Your task to perform on an android device: Add "bose soundlink mini" to the cart on bestbuy Image 0: 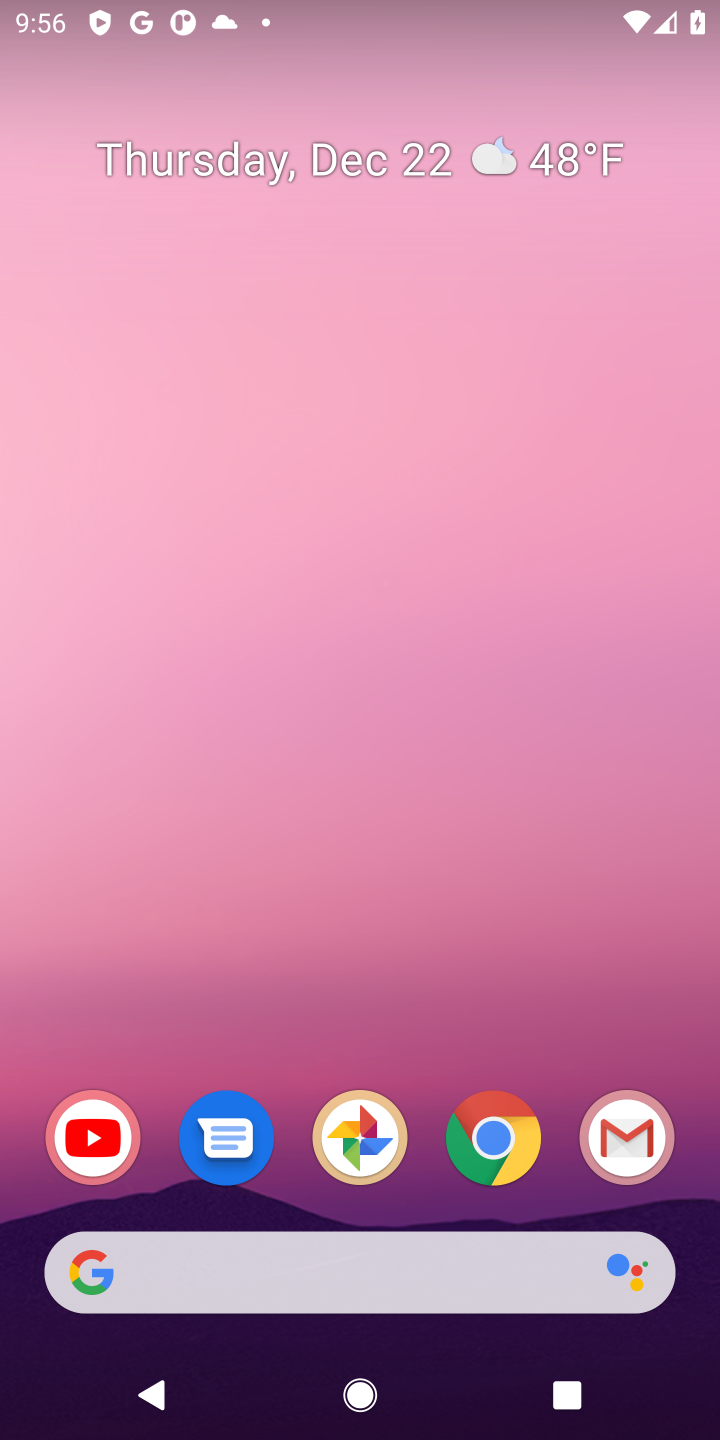
Step 0: click (483, 1154)
Your task to perform on an android device: Add "bose soundlink mini" to the cart on bestbuy Image 1: 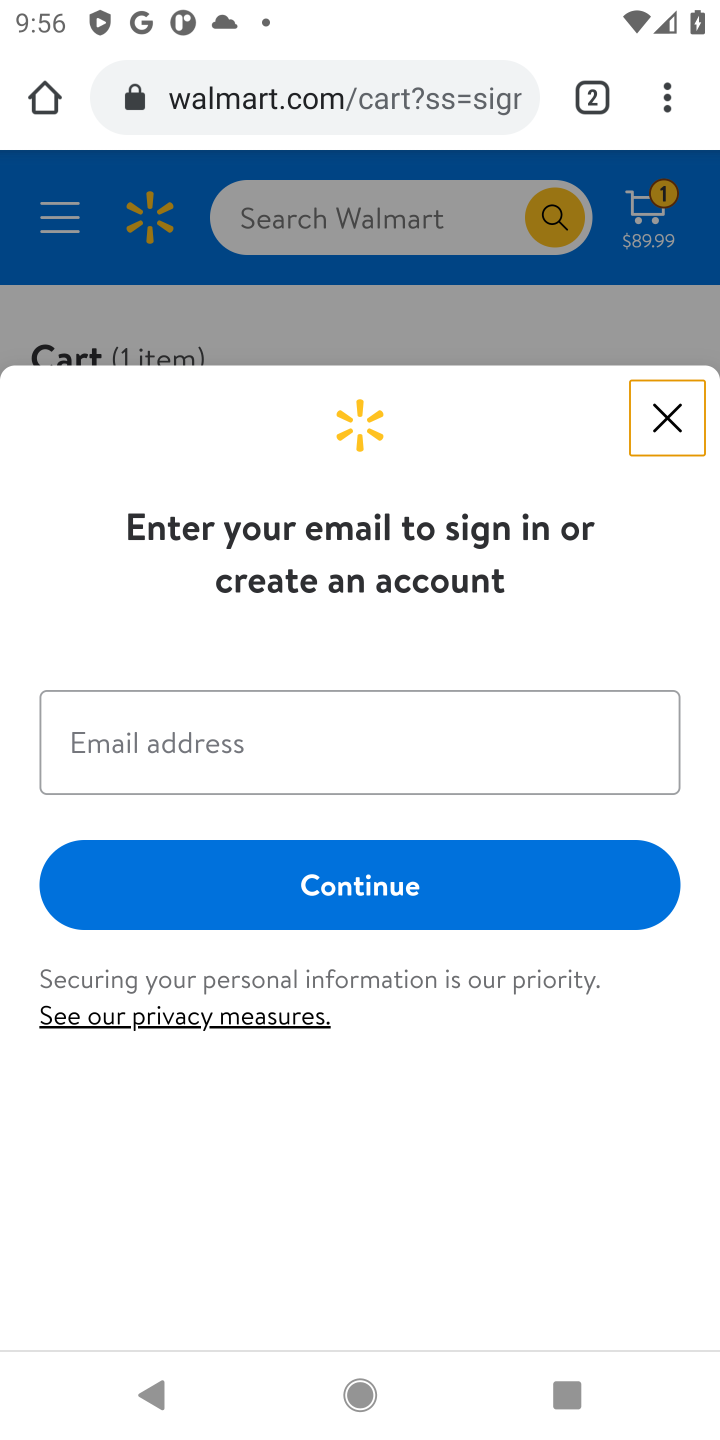
Step 1: click (330, 88)
Your task to perform on an android device: Add "bose soundlink mini" to the cart on bestbuy Image 2: 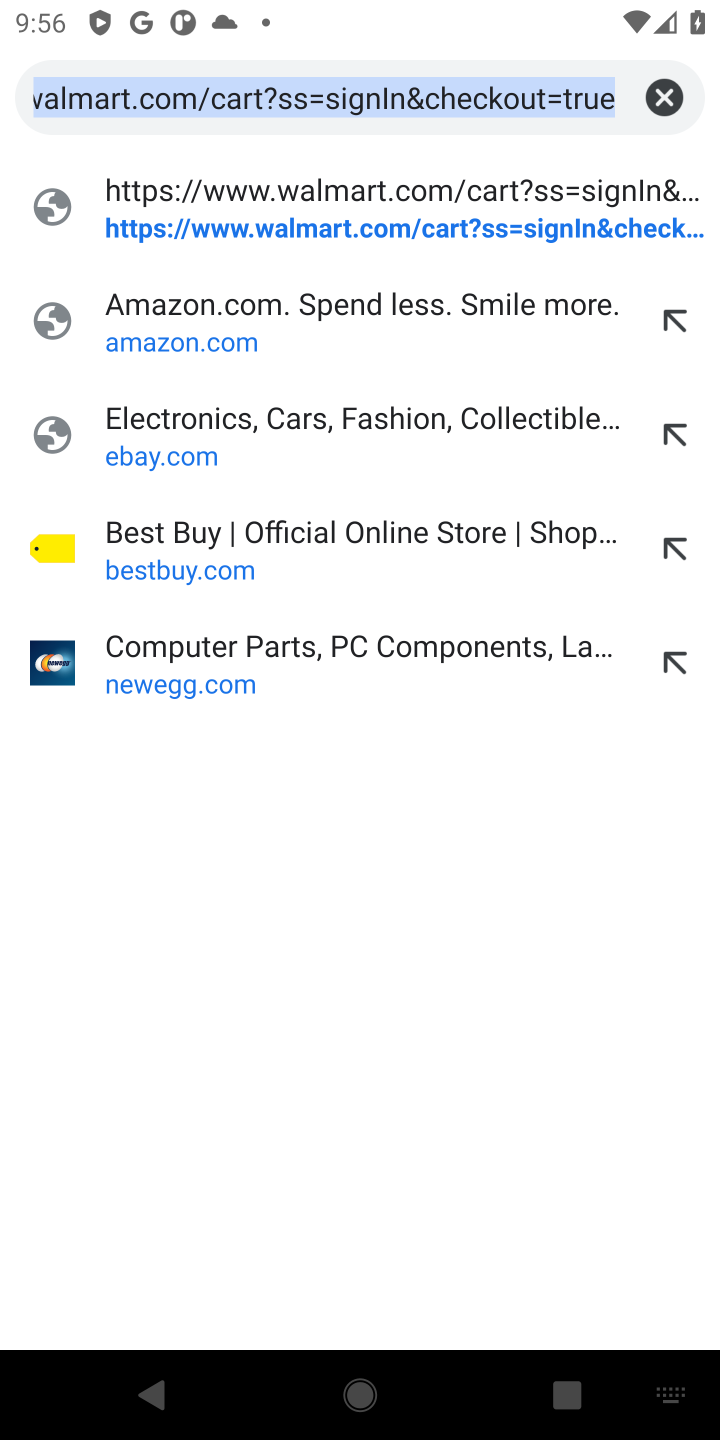
Step 2: type "bestbuy"
Your task to perform on an android device: Add "bose soundlink mini" to the cart on bestbuy Image 3: 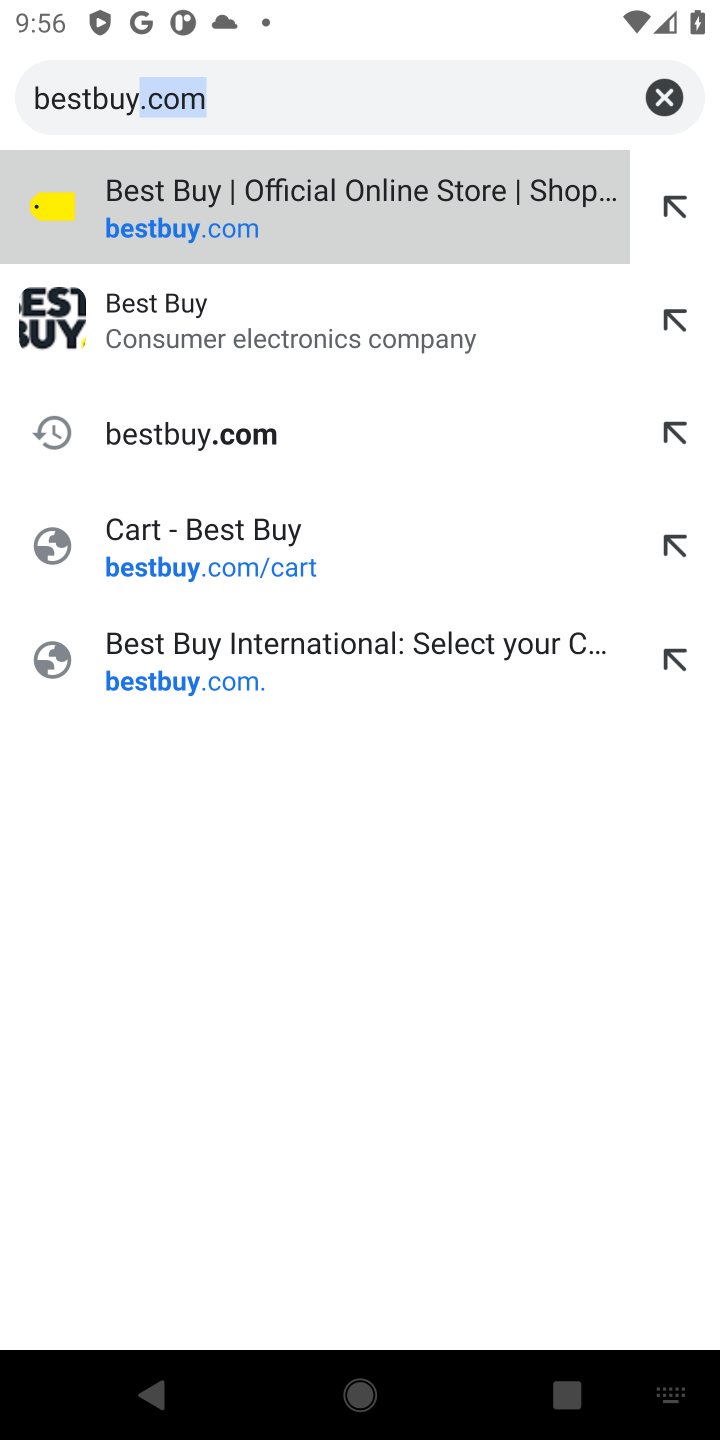
Step 3: click (371, 208)
Your task to perform on an android device: Add "bose soundlink mini" to the cart on bestbuy Image 4: 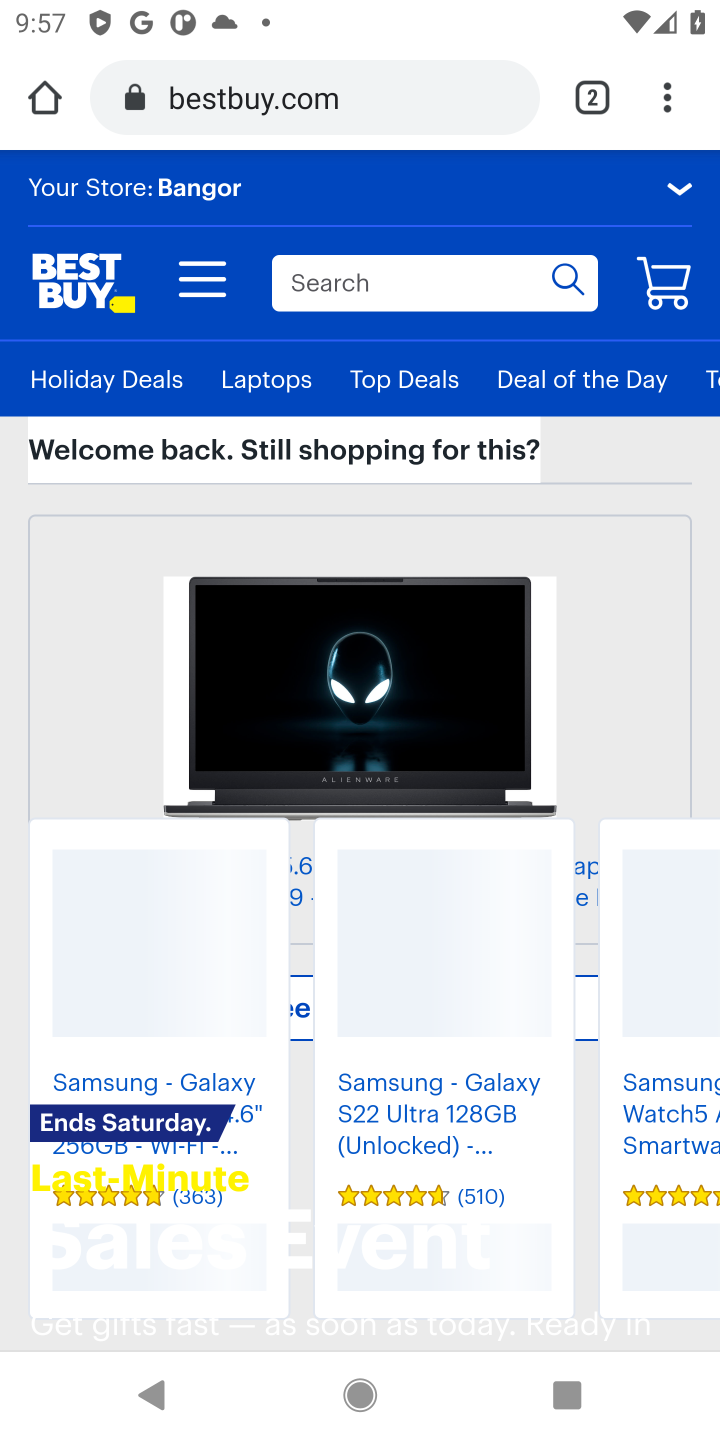
Step 4: click (382, 282)
Your task to perform on an android device: Add "bose soundlink mini" to the cart on bestbuy Image 5: 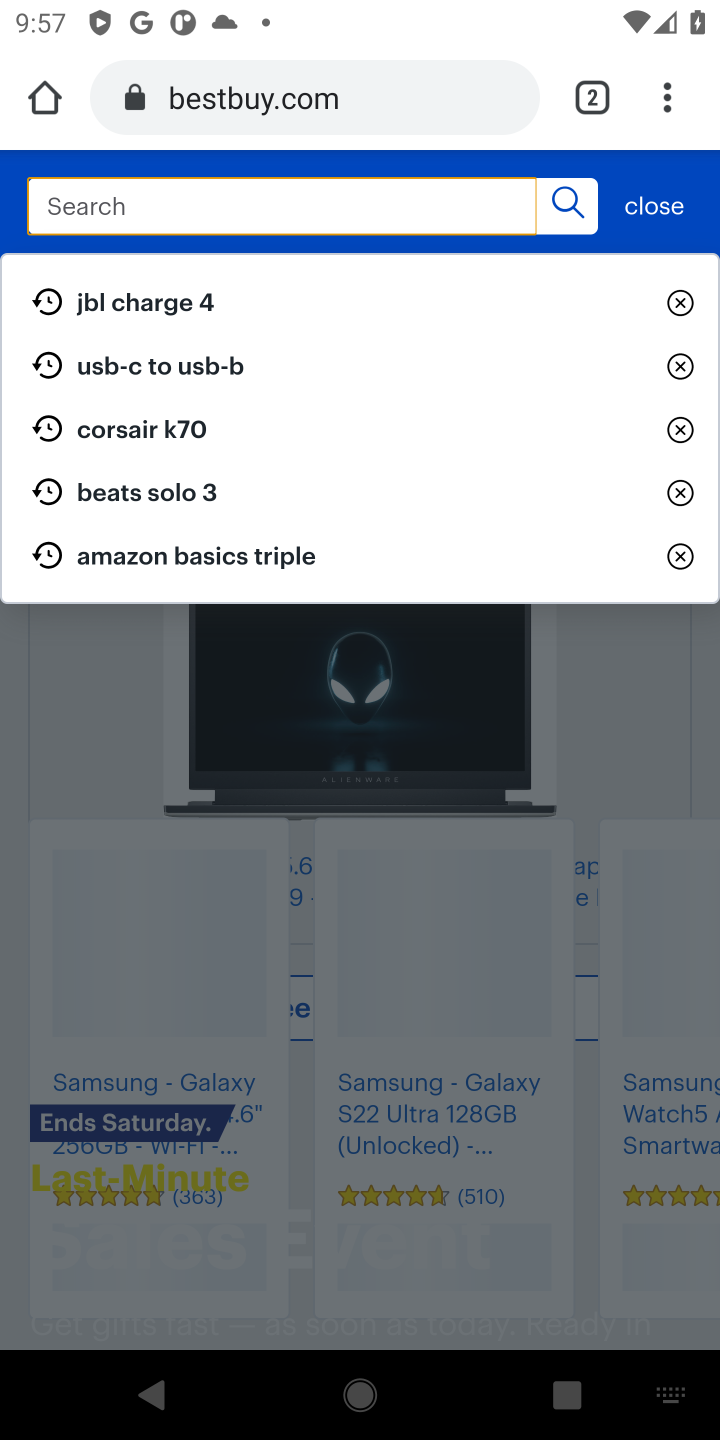
Step 5: type "bose soundlink mini"
Your task to perform on an android device: Add "bose soundlink mini" to the cart on bestbuy Image 6: 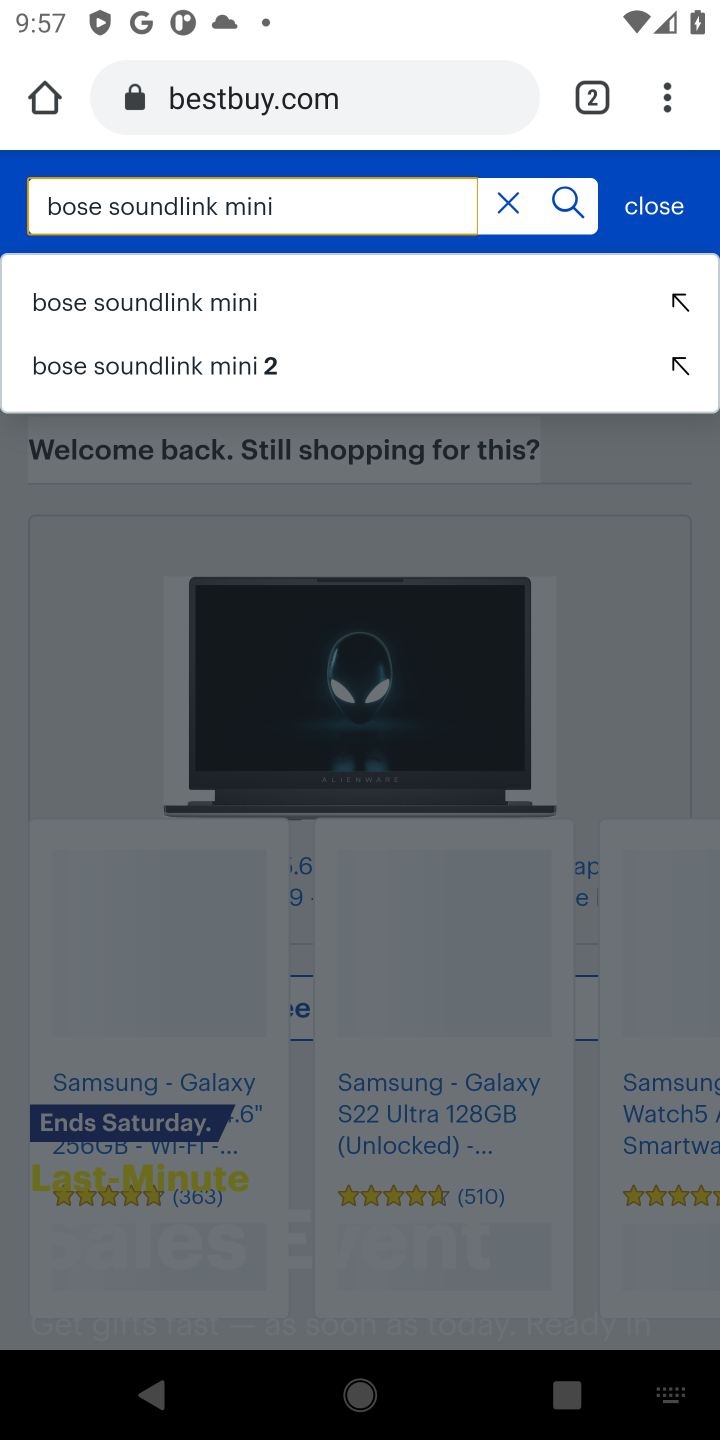
Step 6: click (562, 206)
Your task to perform on an android device: Add "bose soundlink mini" to the cart on bestbuy Image 7: 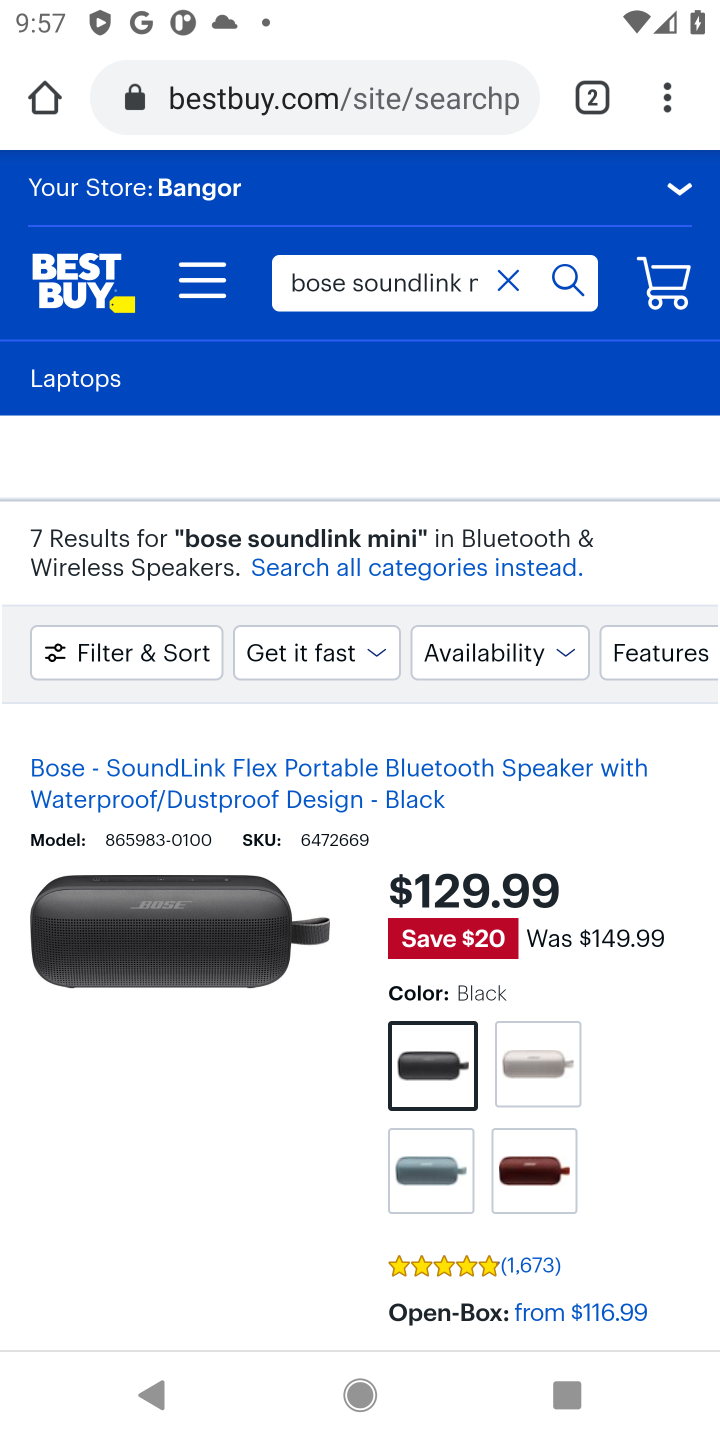
Step 7: drag from (254, 1142) to (269, 849)
Your task to perform on an android device: Add "bose soundlink mini" to the cart on bestbuy Image 8: 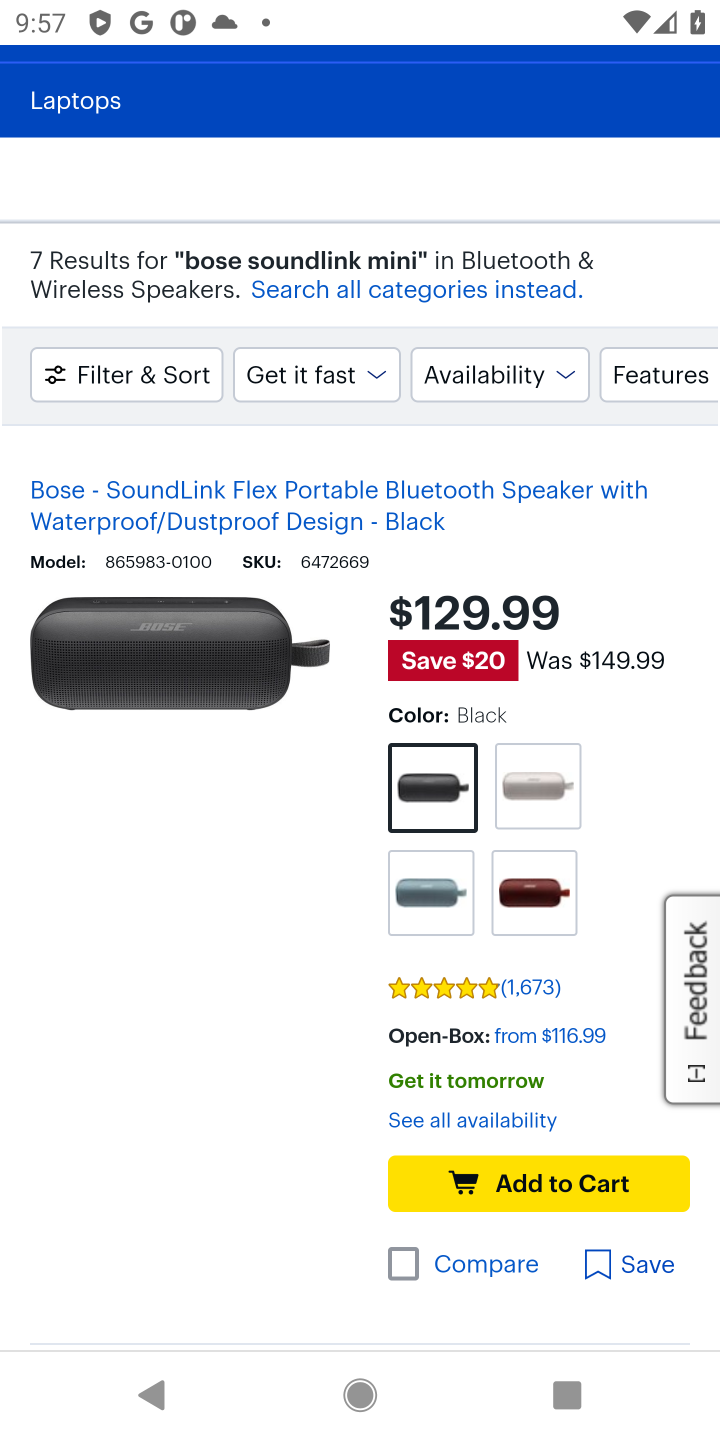
Step 8: click (492, 1187)
Your task to perform on an android device: Add "bose soundlink mini" to the cart on bestbuy Image 9: 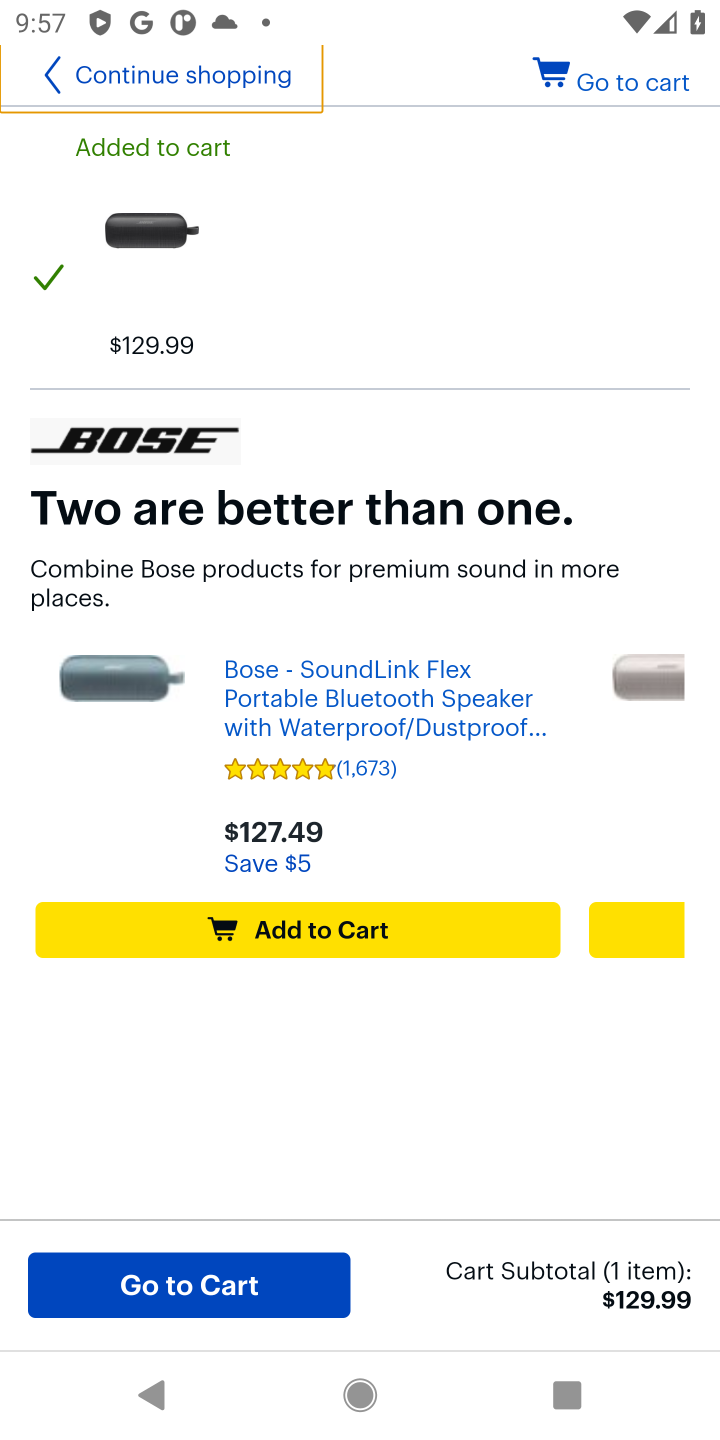
Step 9: click (202, 1275)
Your task to perform on an android device: Add "bose soundlink mini" to the cart on bestbuy Image 10: 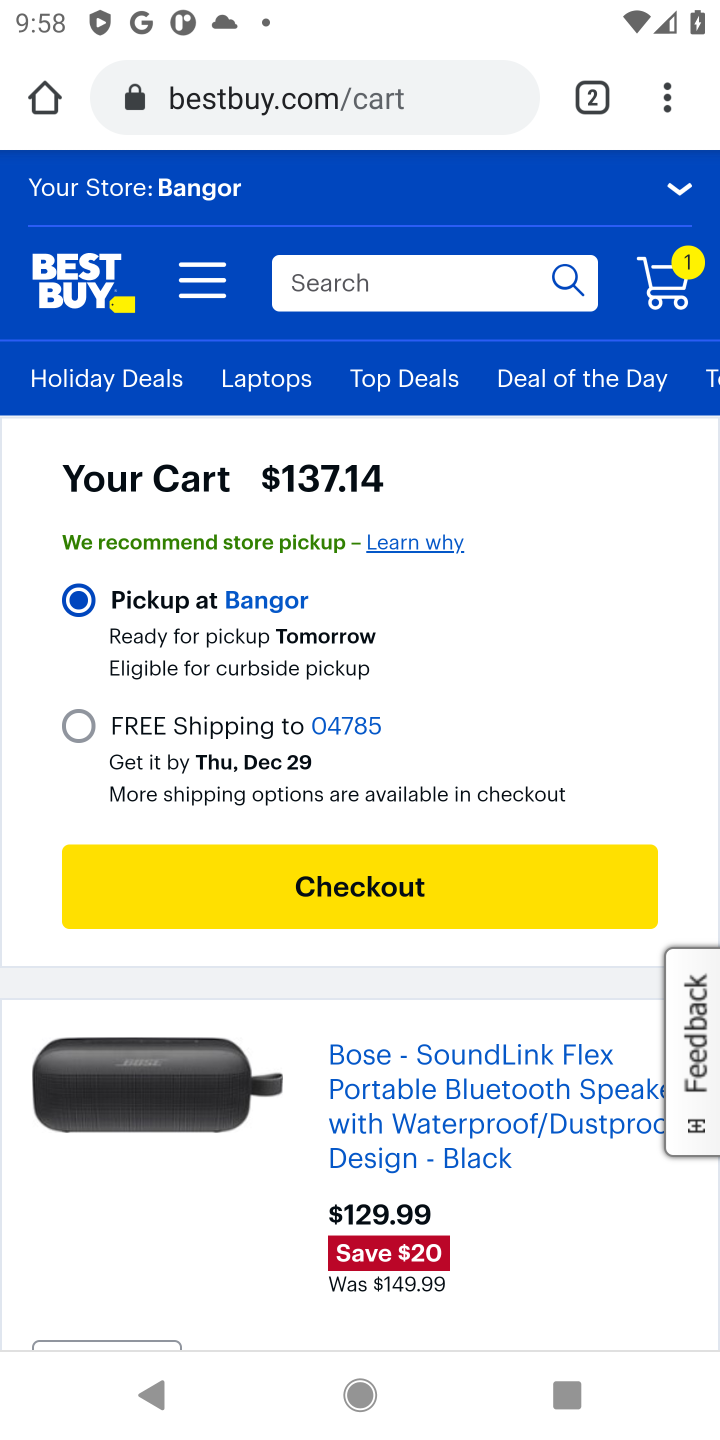
Step 10: task complete